Your task to perform on an android device: change the clock display to analog Image 0: 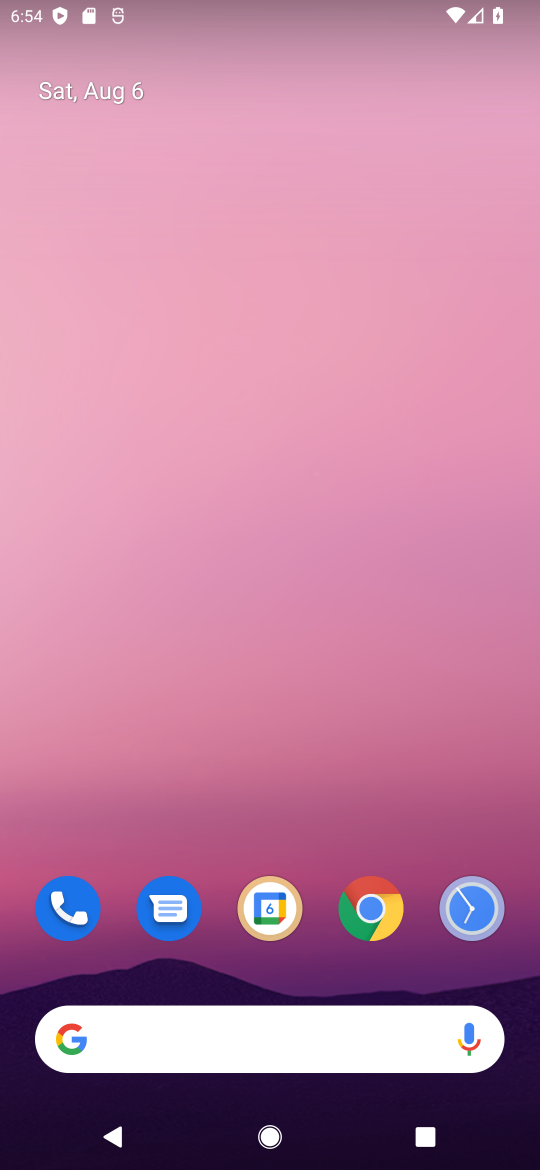
Step 0: click (484, 914)
Your task to perform on an android device: change the clock display to analog Image 1: 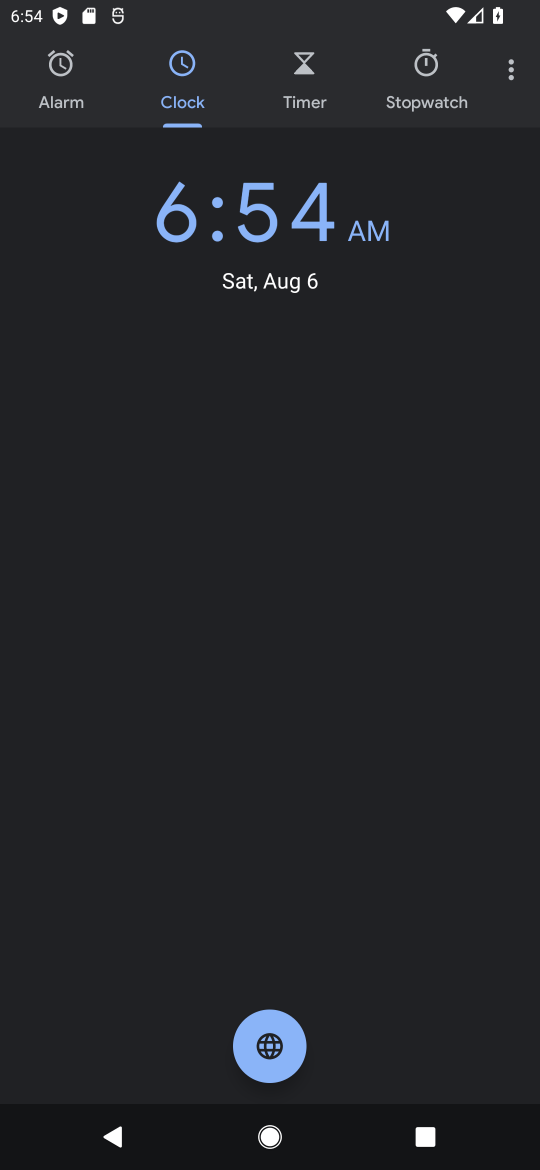
Step 1: click (510, 85)
Your task to perform on an android device: change the clock display to analog Image 2: 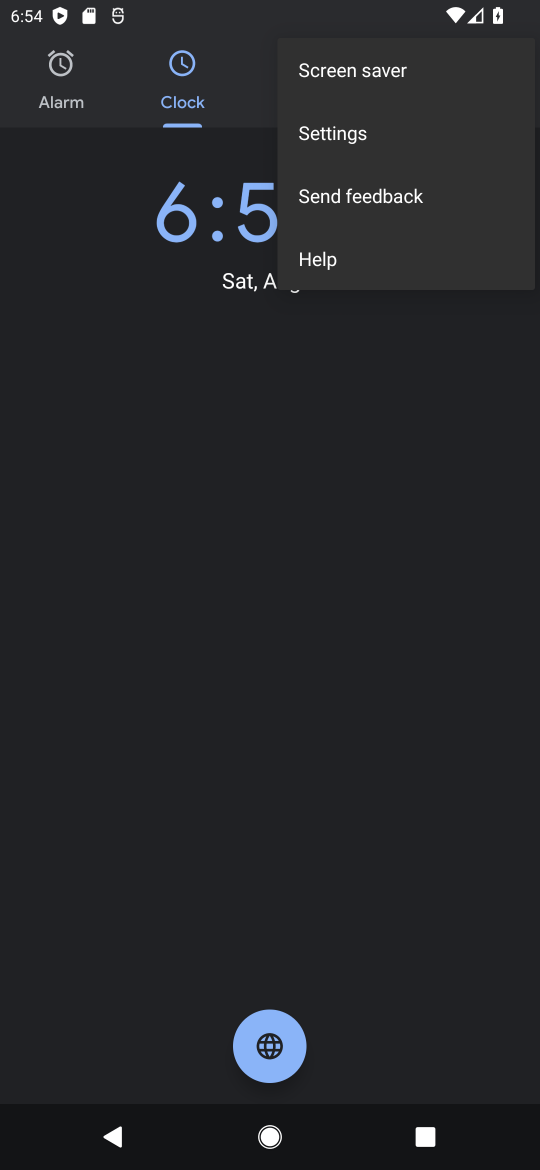
Step 2: click (379, 125)
Your task to perform on an android device: change the clock display to analog Image 3: 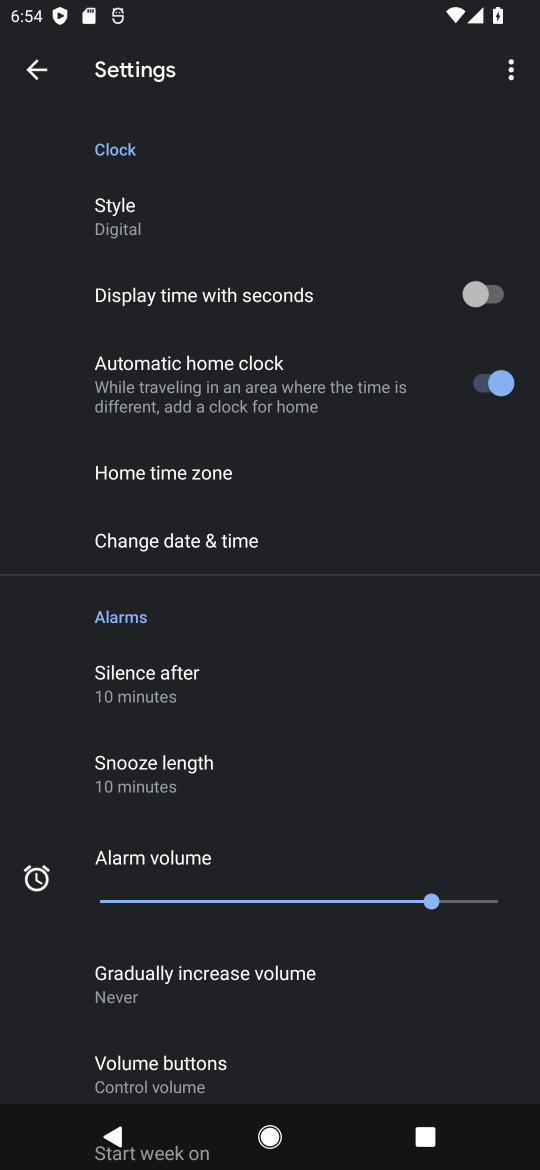
Step 3: click (302, 199)
Your task to perform on an android device: change the clock display to analog Image 4: 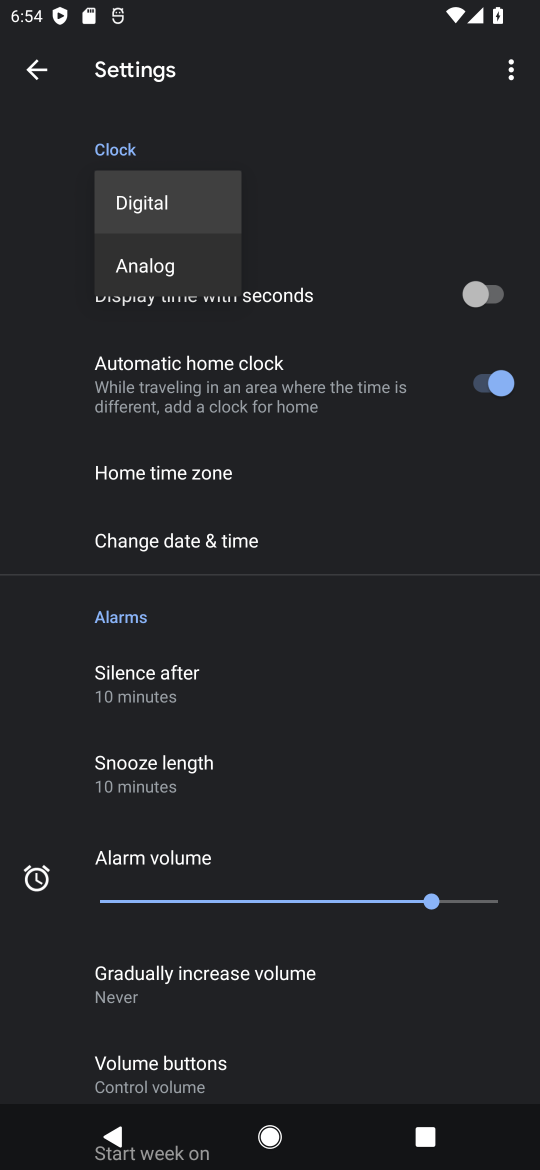
Step 4: click (203, 278)
Your task to perform on an android device: change the clock display to analog Image 5: 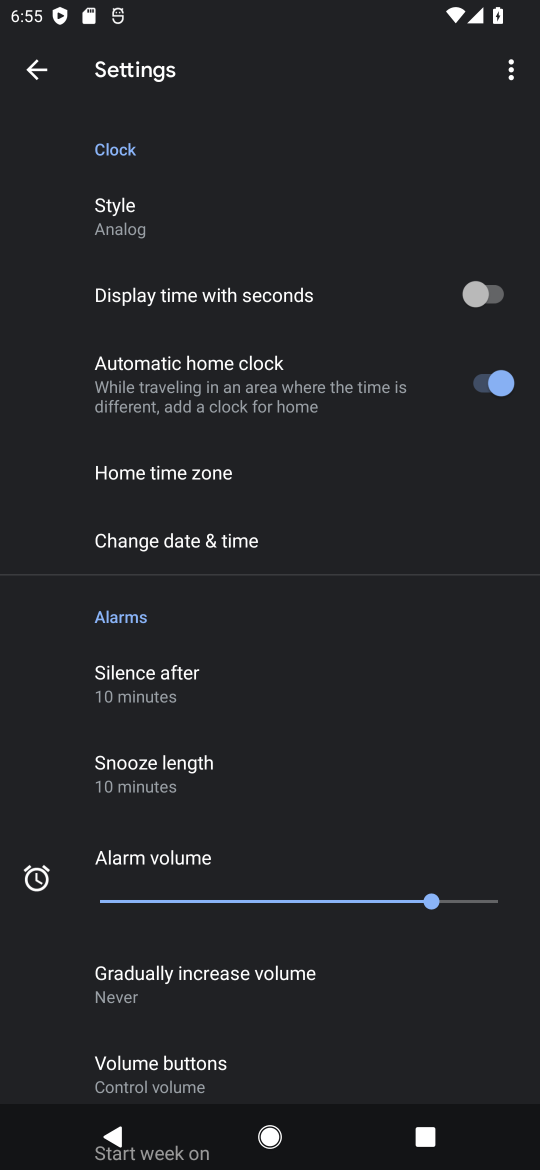
Step 5: task complete